Your task to perform on an android device: Clear the cart on ebay. Search for "acer predator" on ebay, select the first entry, and add it to the cart. Image 0: 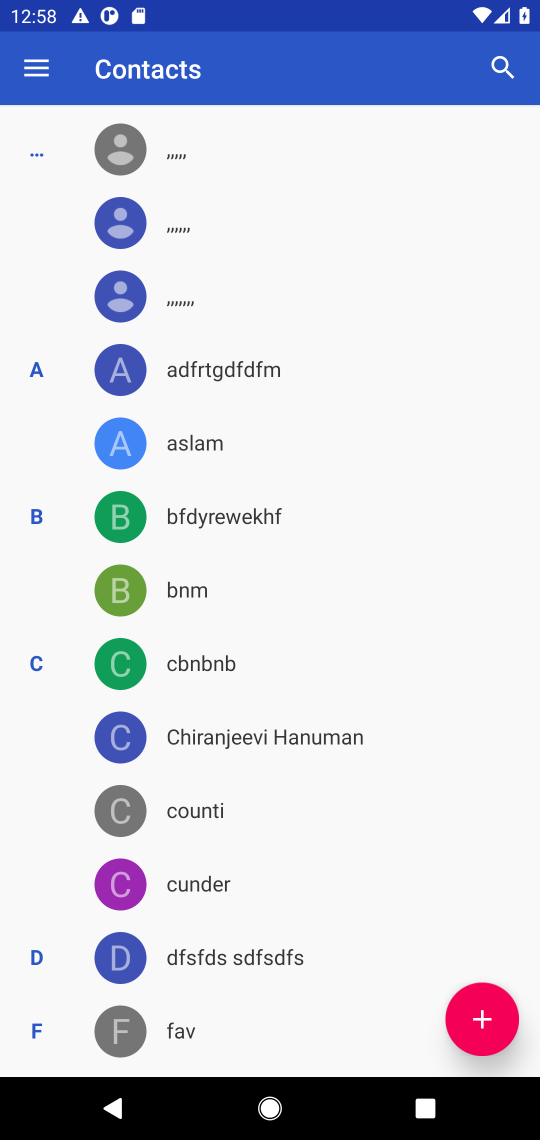
Step 0: press home button
Your task to perform on an android device: Clear the cart on ebay. Search for "acer predator" on ebay, select the first entry, and add it to the cart. Image 1: 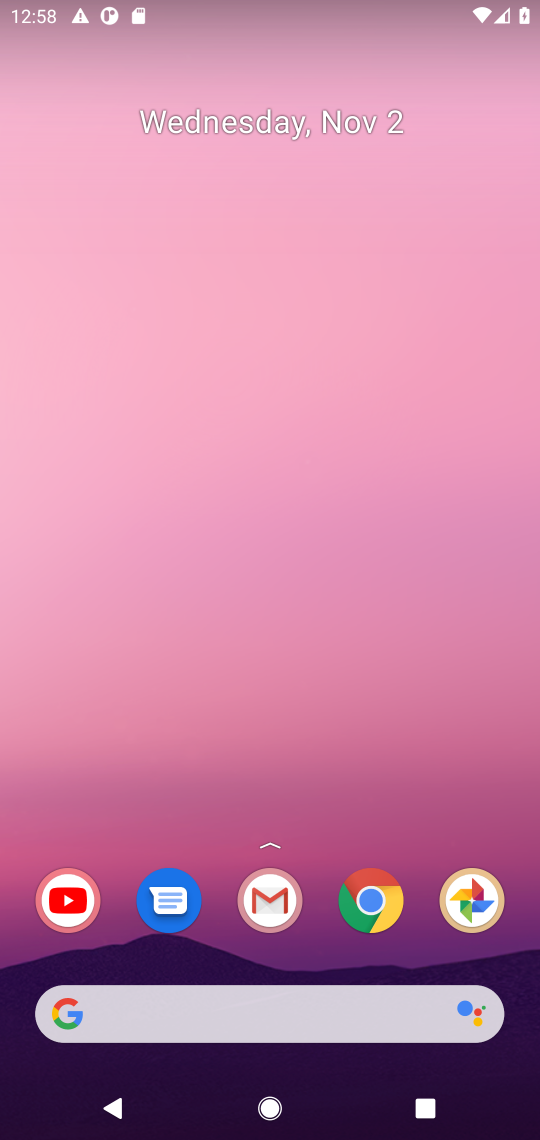
Step 1: click (379, 886)
Your task to perform on an android device: Clear the cart on ebay. Search for "acer predator" on ebay, select the first entry, and add it to the cart. Image 2: 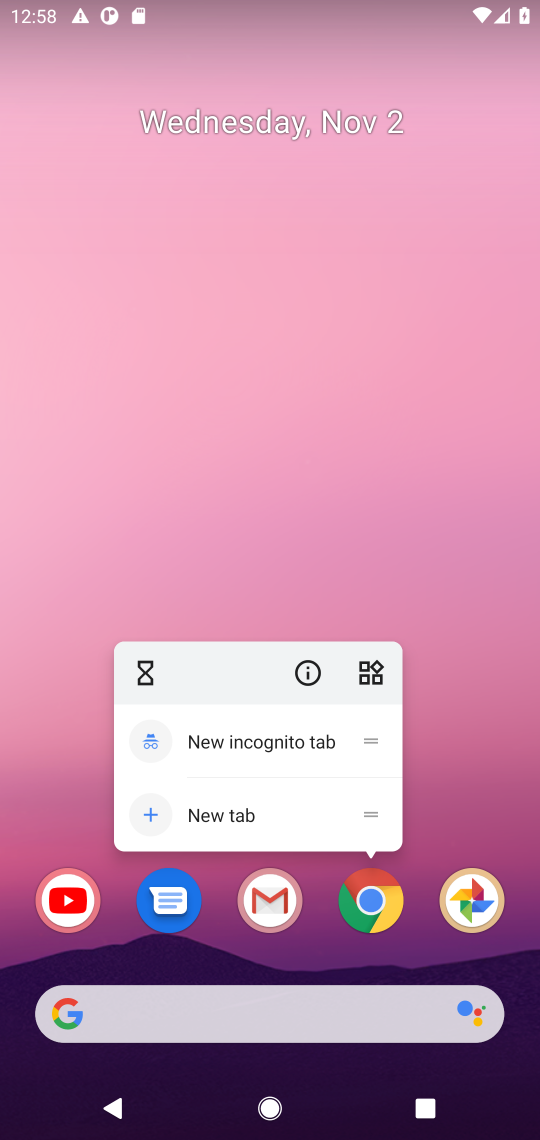
Step 2: click (377, 905)
Your task to perform on an android device: Clear the cart on ebay. Search for "acer predator" on ebay, select the first entry, and add it to the cart. Image 3: 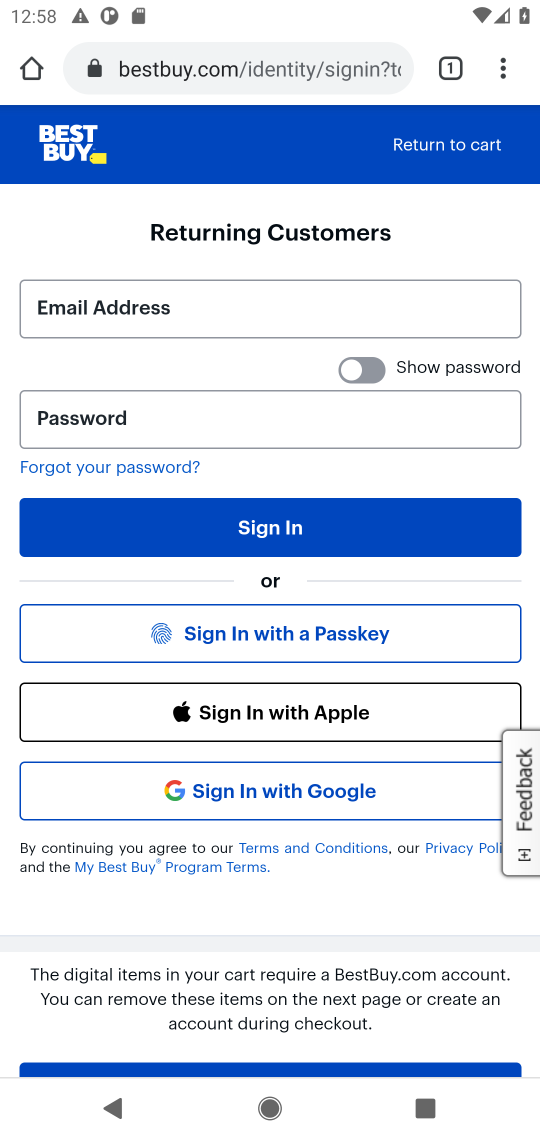
Step 3: click (241, 70)
Your task to perform on an android device: Clear the cart on ebay. Search for "acer predator" on ebay, select the first entry, and add it to the cart. Image 4: 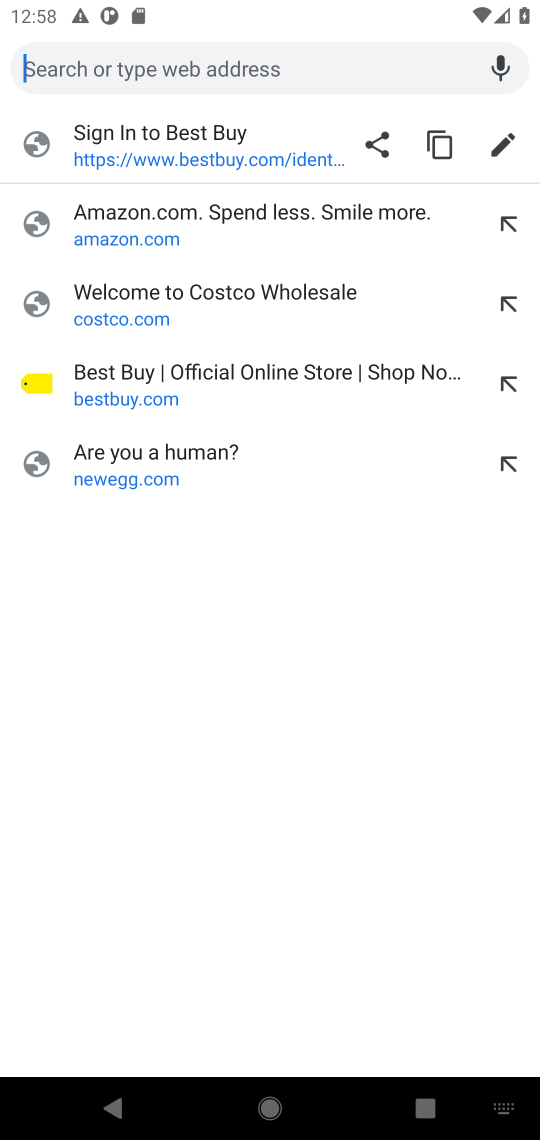
Step 4: type "ebay"
Your task to perform on an android device: Clear the cart on ebay. Search for "acer predator" on ebay, select the first entry, and add it to the cart. Image 5: 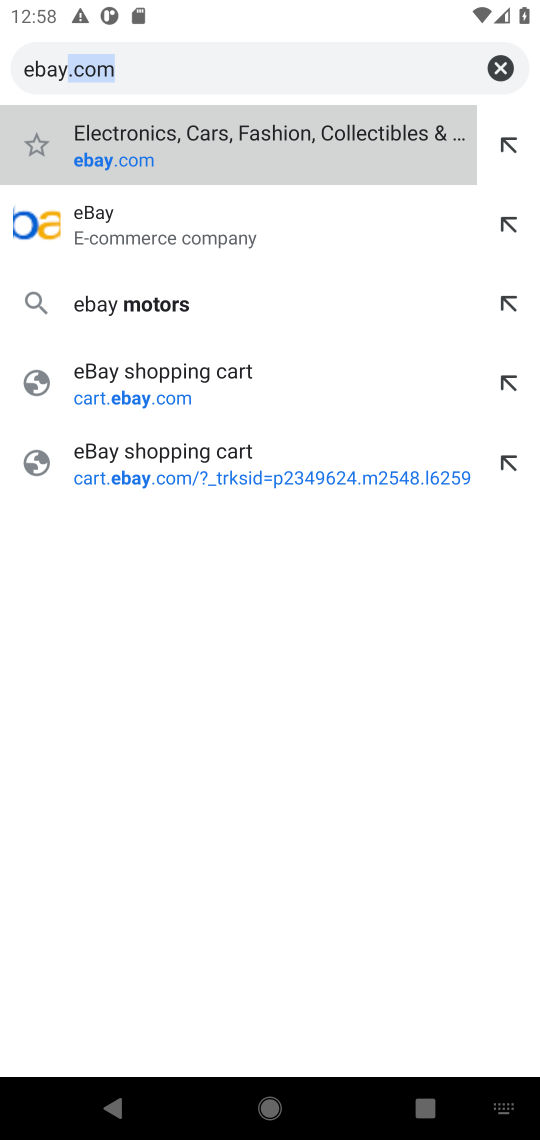
Step 5: type ""
Your task to perform on an android device: Clear the cart on ebay. Search for "acer predator" on ebay, select the first entry, and add it to the cart. Image 6: 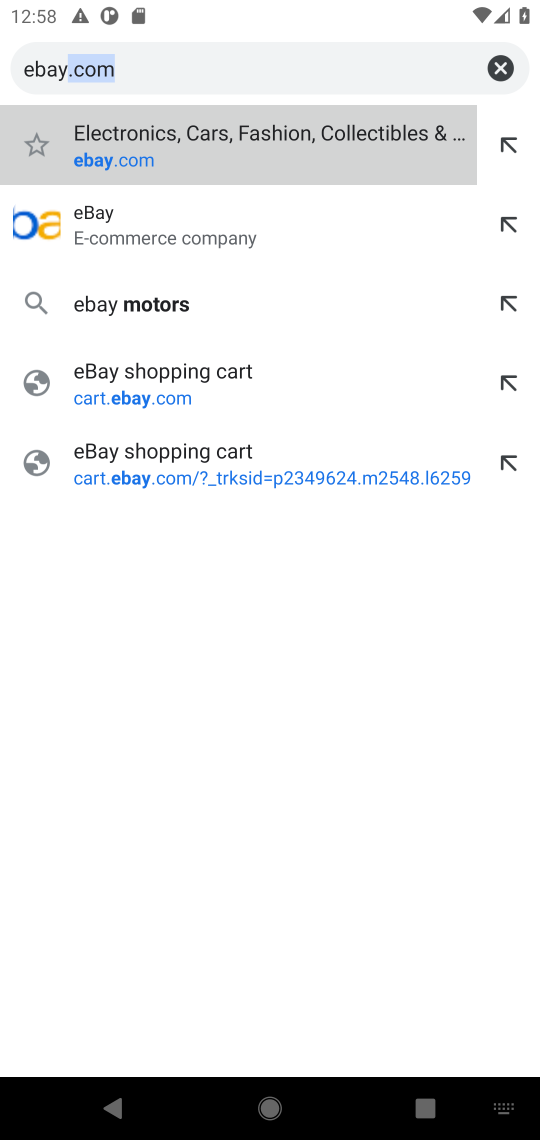
Step 6: click (132, 244)
Your task to perform on an android device: Clear the cart on ebay. Search for "acer predator" on ebay, select the first entry, and add it to the cart. Image 7: 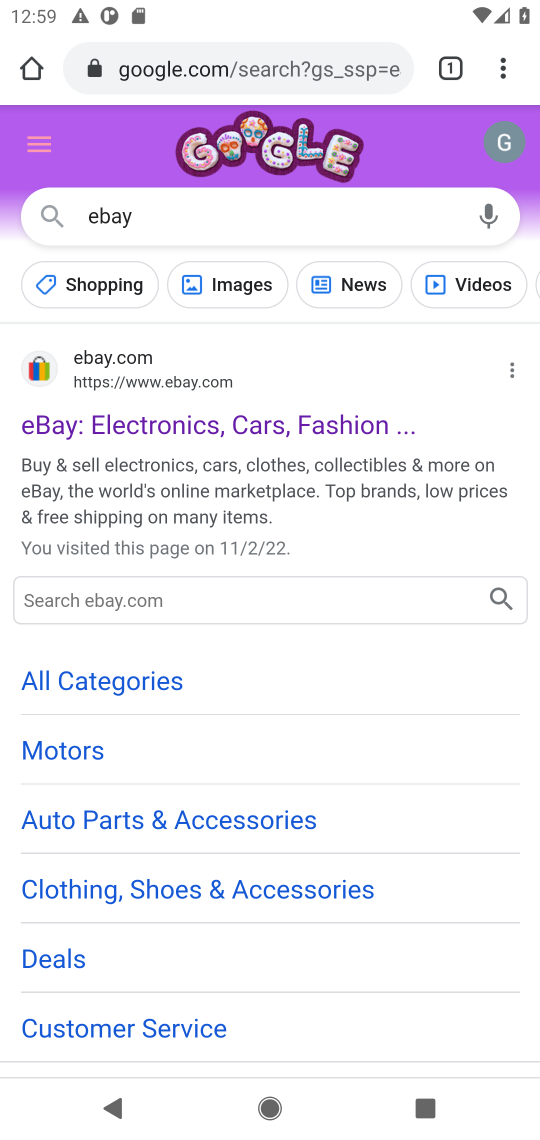
Step 7: click (145, 426)
Your task to perform on an android device: Clear the cart on ebay. Search for "acer predator" on ebay, select the first entry, and add it to the cart. Image 8: 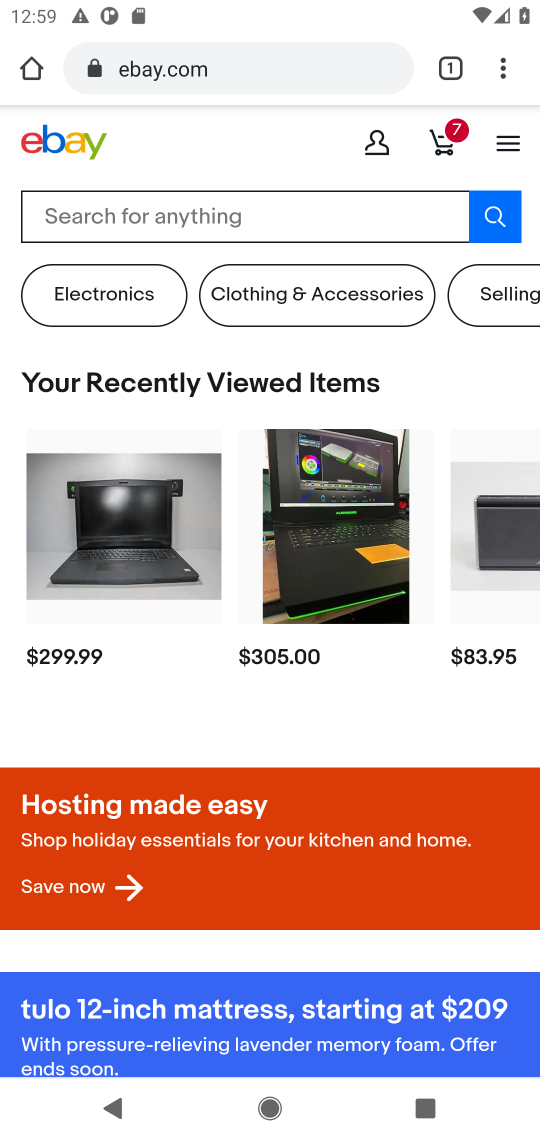
Step 8: click (187, 216)
Your task to perform on an android device: Clear the cart on ebay. Search for "acer predator" on ebay, select the first entry, and add it to the cart. Image 9: 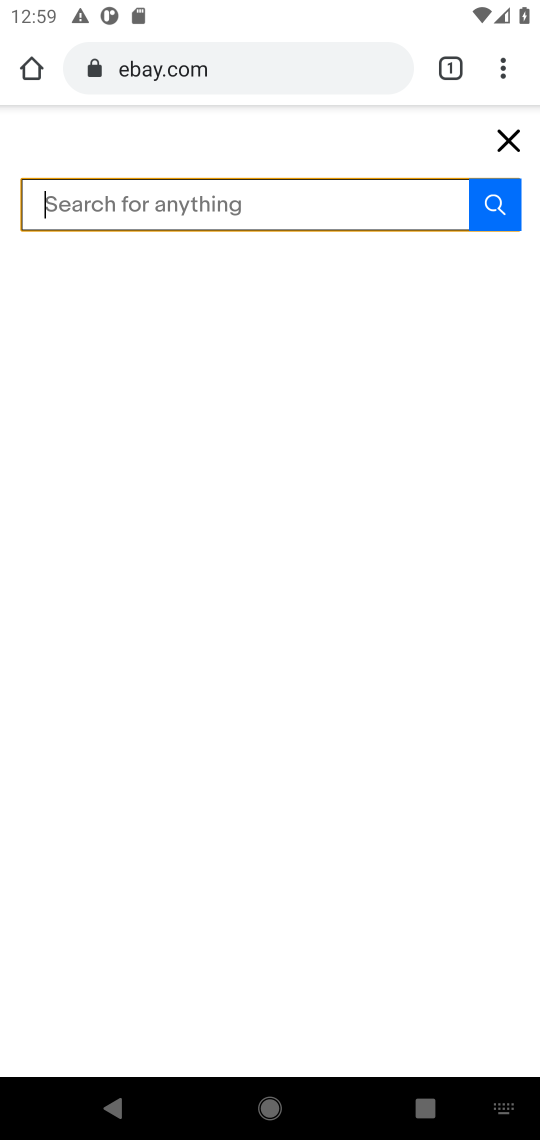
Step 9: type "acer predator"
Your task to perform on an android device: Clear the cart on ebay. Search for "acer predator" on ebay, select the first entry, and add it to the cart. Image 10: 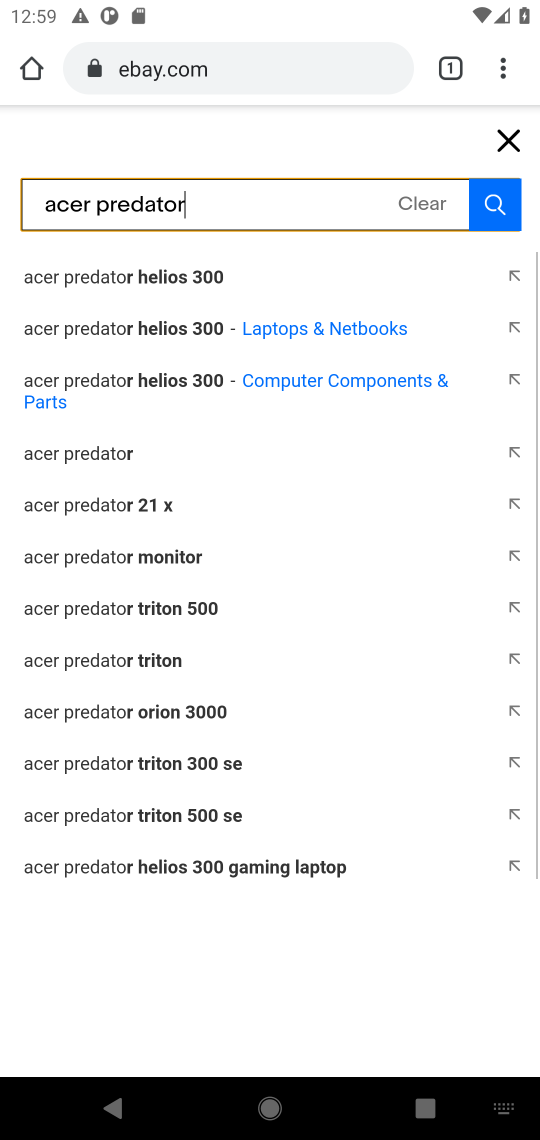
Step 10: type ""
Your task to perform on an android device: Clear the cart on ebay. Search for "acer predator" on ebay, select the first entry, and add it to the cart. Image 11: 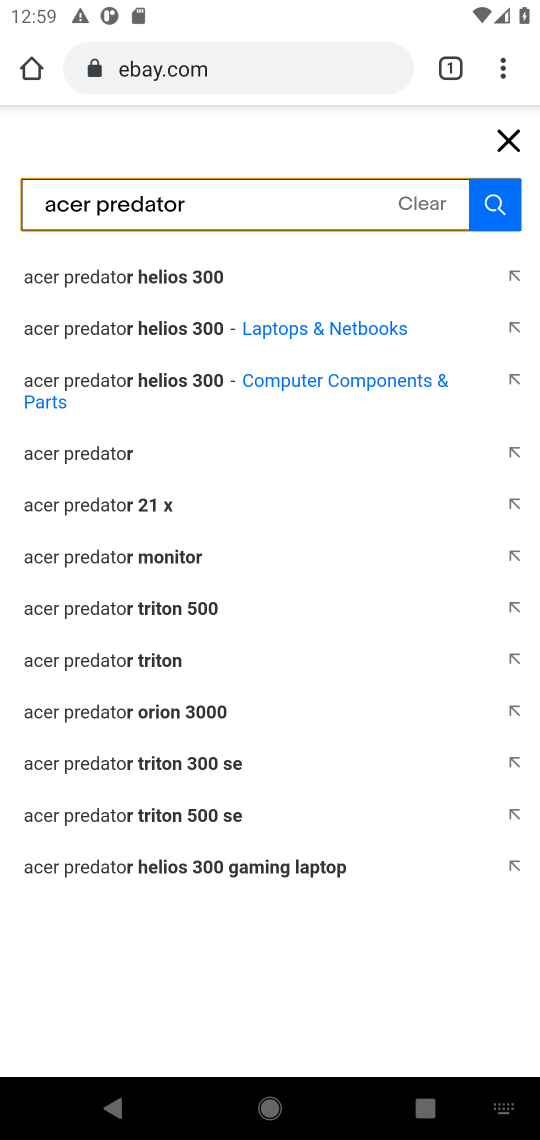
Step 11: click (500, 199)
Your task to perform on an android device: Clear the cart on ebay. Search for "acer predator" on ebay, select the first entry, and add it to the cart. Image 12: 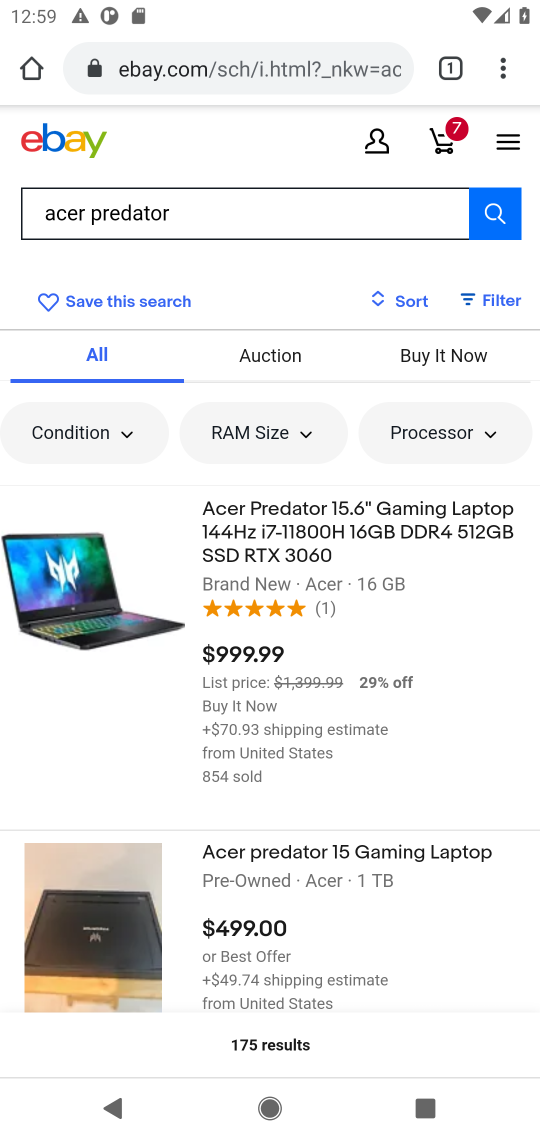
Step 12: click (446, 138)
Your task to perform on an android device: Clear the cart on ebay. Search for "acer predator" on ebay, select the first entry, and add it to the cart. Image 13: 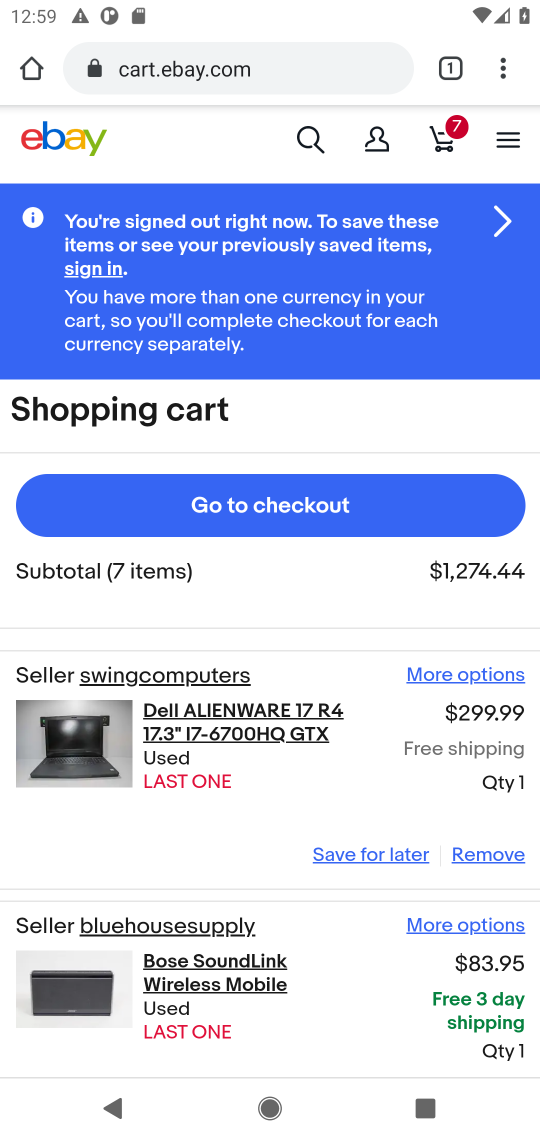
Step 13: click (462, 847)
Your task to perform on an android device: Clear the cart on ebay. Search for "acer predator" on ebay, select the first entry, and add it to the cart. Image 14: 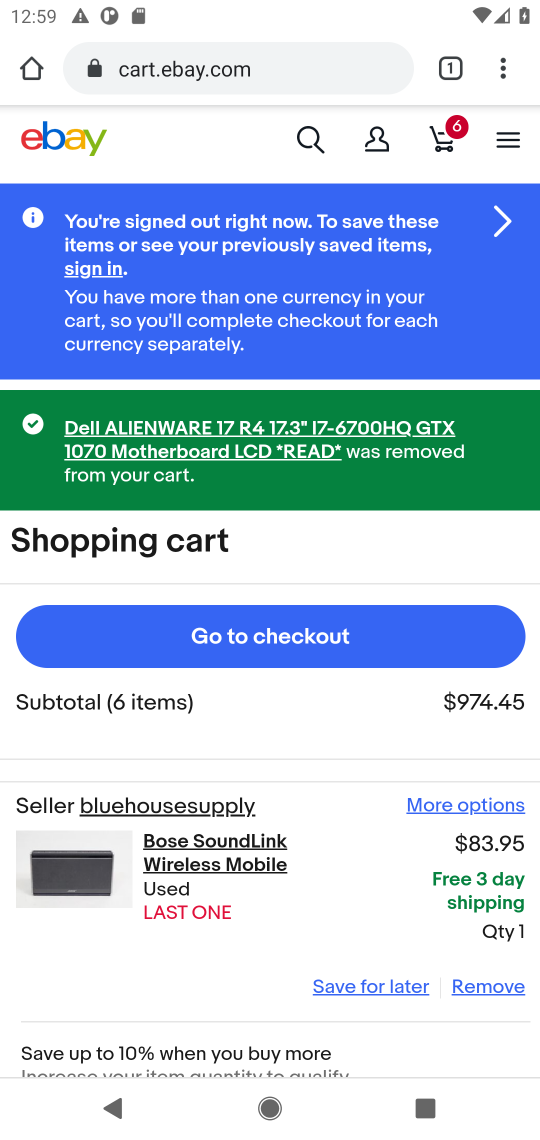
Step 14: click (476, 989)
Your task to perform on an android device: Clear the cart on ebay. Search for "acer predator" on ebay, select the first entry, and add it to the cart. Image 15: 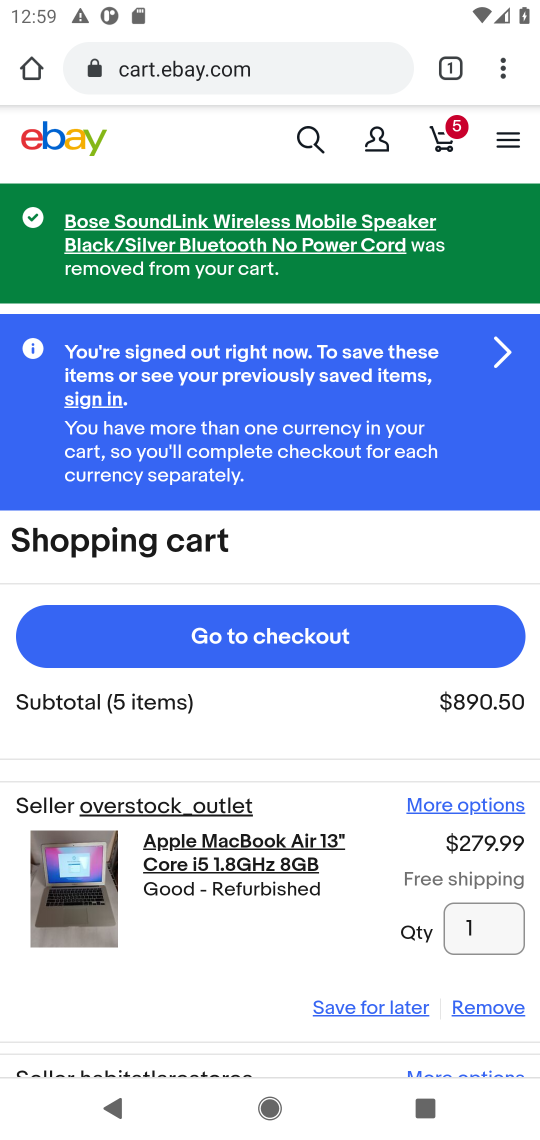
Step 15: click (481, 1002)
Your task to perform on an android device: Clear the cart on ebay. Search for "acer predator" on ebay, select the first entry, and add it to the cart. Image 16: 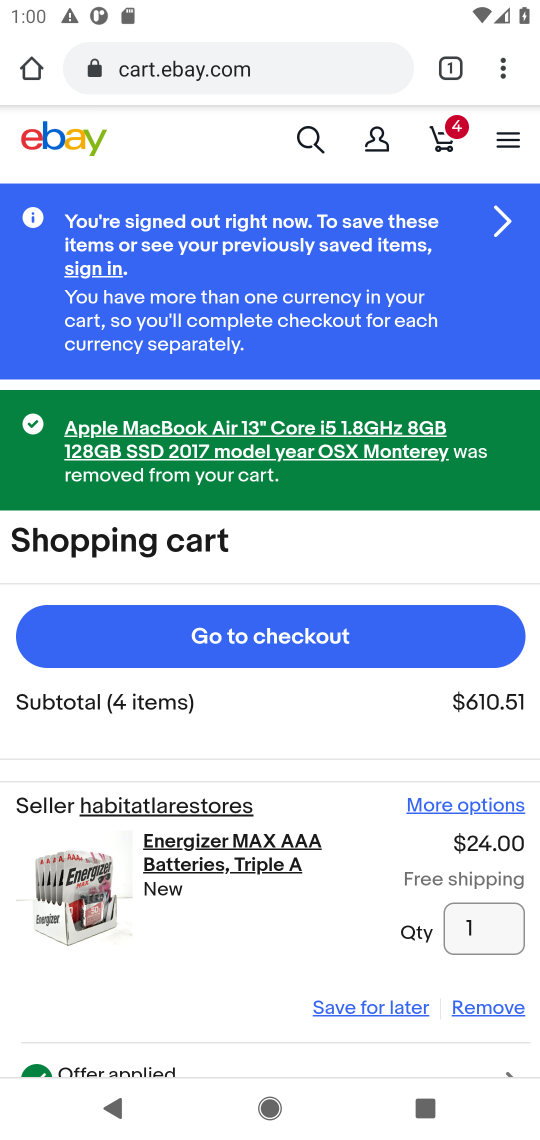
Step 16: click (481, 1002)
Your task to perform on an android device: Clear the cart on ebay. Search for "acer predator" on ebay, select the first entry, and add it to the cart. Image 17: 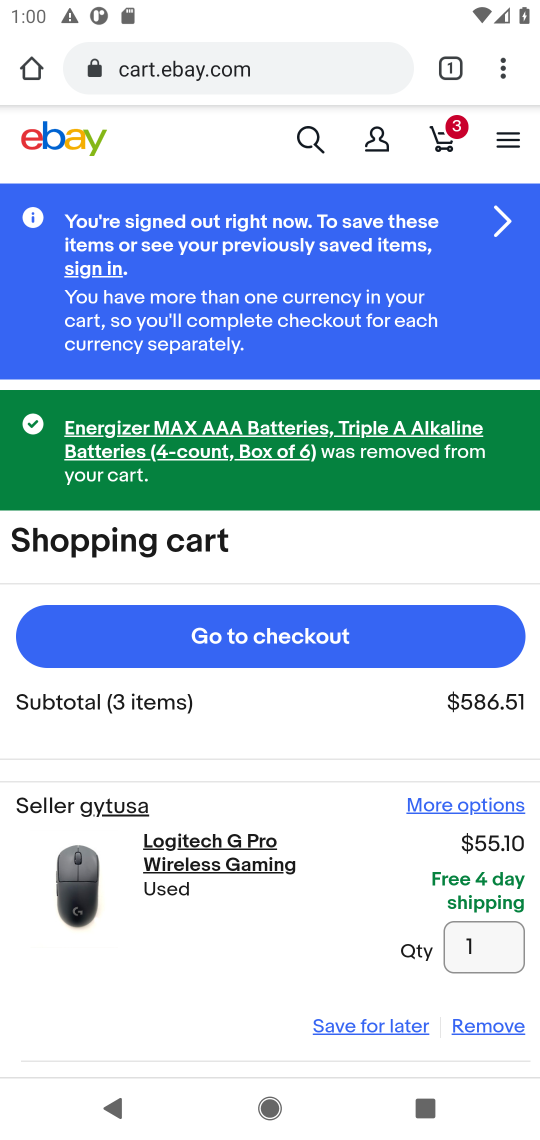
Step 17: click (476, 1027)
Your task to perform on an android device: Clear the cart on ebay. Search for "acer predator" on ebay, select the first entry, and add it to the cart. Image 18: 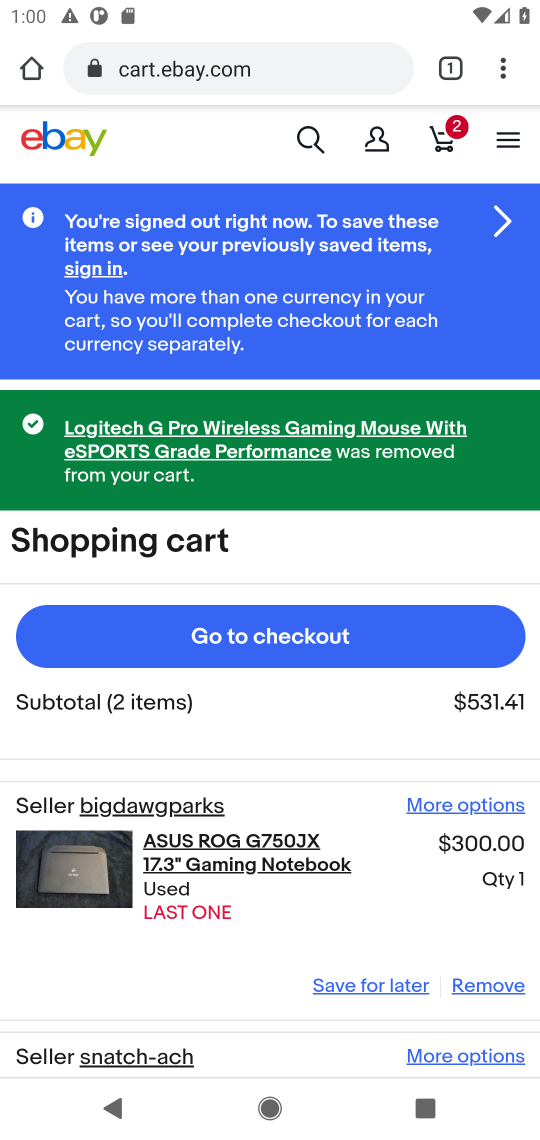
Step 18: click (471, 990)
Your task to perform on an android device: Clear the cart on ebay. Search for "acer predator" on ebay, select the first entry, and add it to the cart. Image 19: 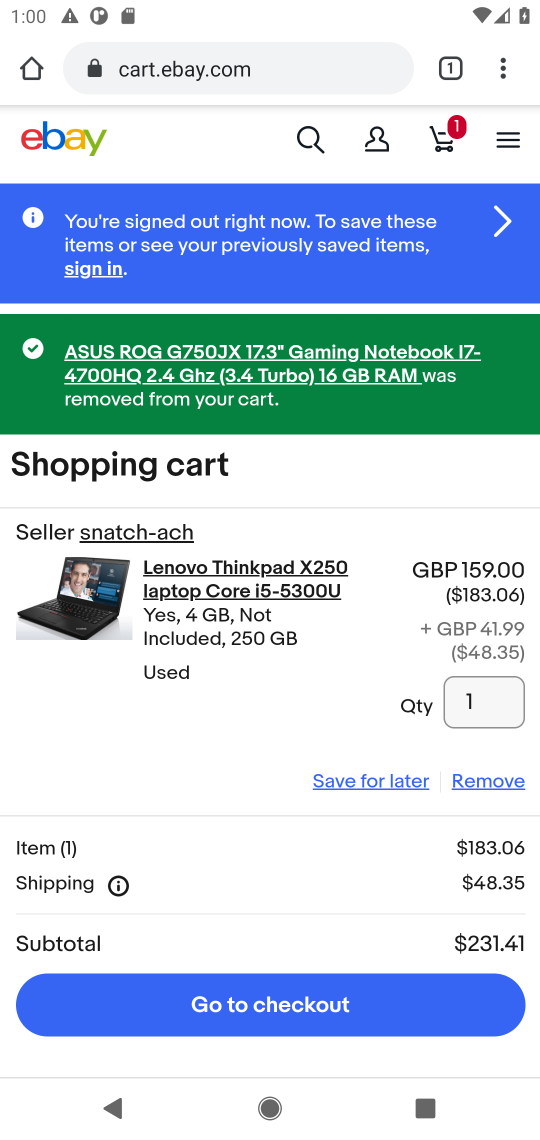
Step 19: click (492, 773)
Your task to perform on an android device: Clear the cart on ebay. Search for "acer predator" on ebay, select the first entry, and add it to the cart. Image 20: 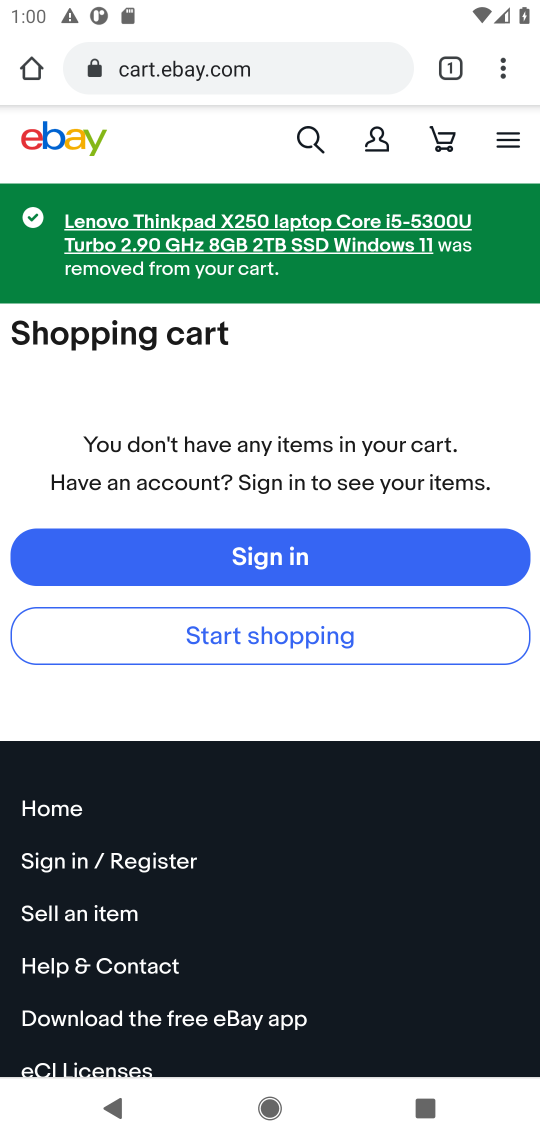
Step 20: click (309, 136)
Your task to perform on an android device: Clear the cart on ebay. Search for "acer predator" on ebay, select the first entry, and add it to the cart. Image 21: 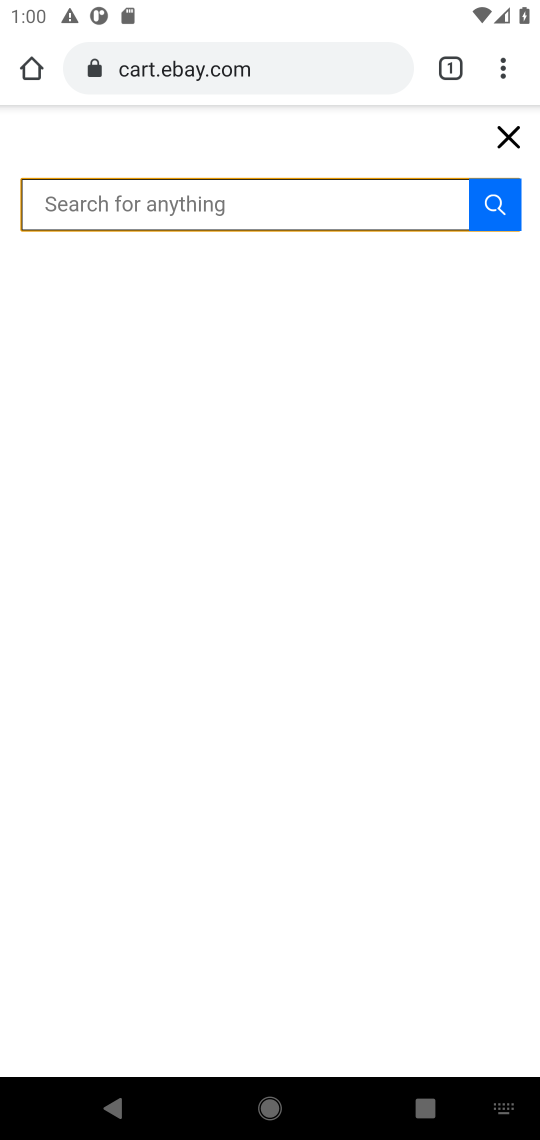
Step 21: type "acer predator"
Your task to perform on an android device: Clear the cart on ebay. Search for "acer predator" on ebay, select the first entry, and add it to the cart. Image 22: 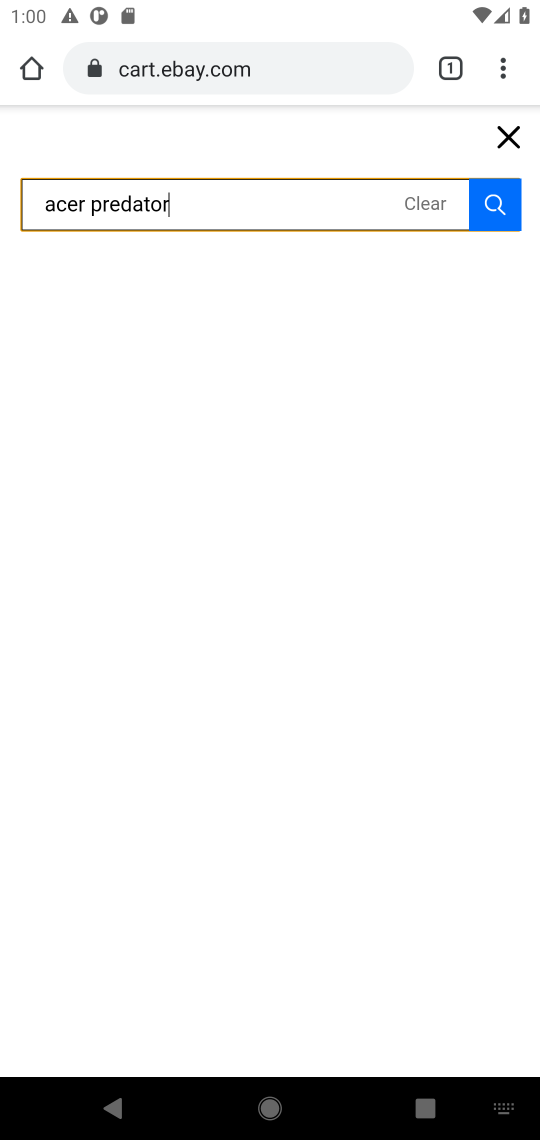
Step 22: type ""
Your task to perform on an android device: Clear the cart on ebay. Search for "acer predator" on ebay, select the first entry, and add it to the cart. Image 23: 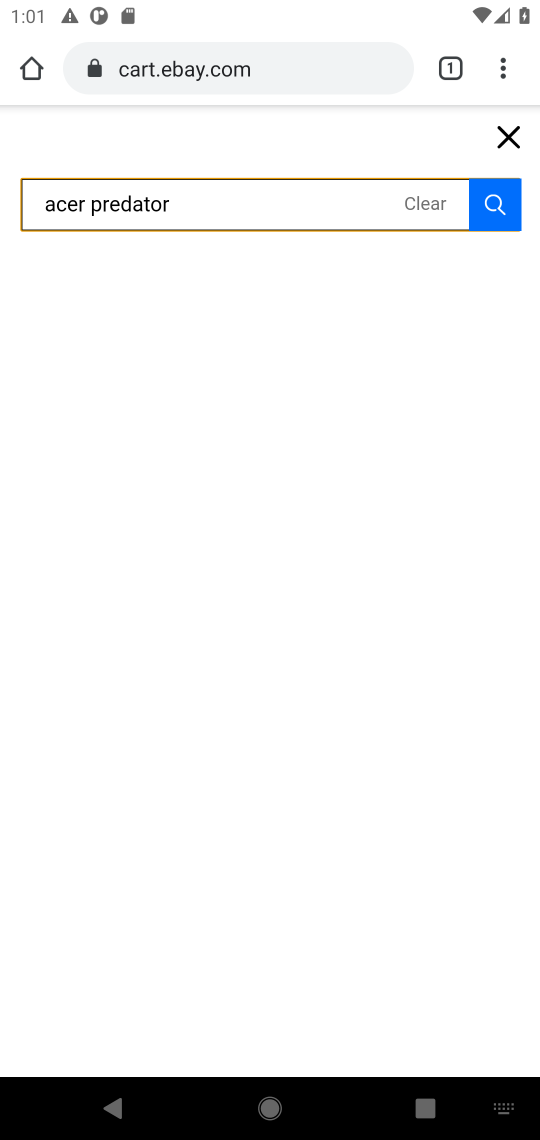
Step 23: click (481, 209)
Your task to perform on an android device: Clear the cart on ebay. Search for "acer predator" on ebay, select the first entry, and add it to the cart. Image 24: 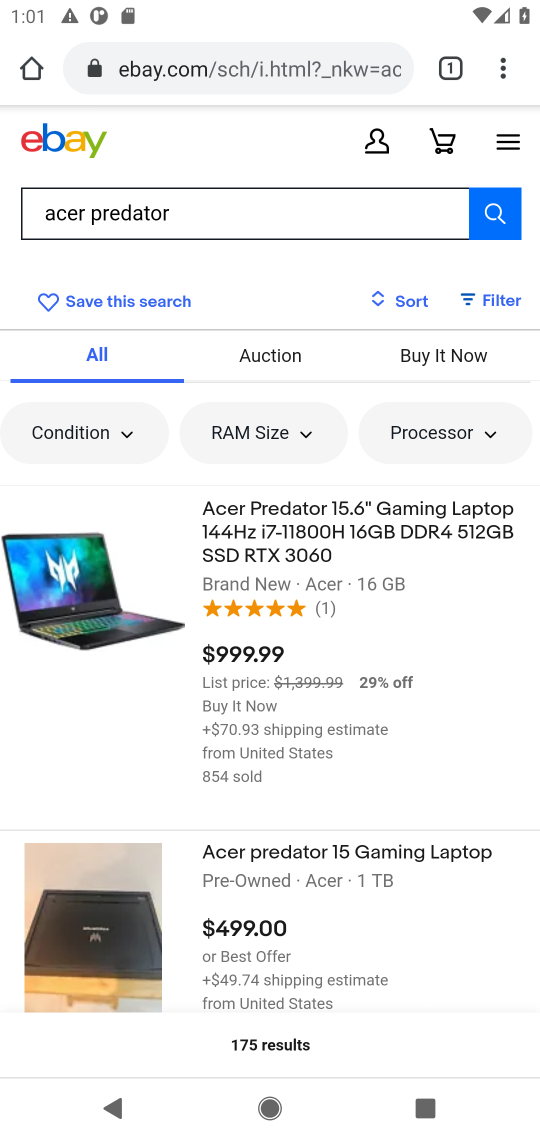
Step 24: click (351, 511)
Your task to perform on an android device: Clear the cart on ebay. Search for "acer predator" on ebay, select the first entry, and add it to the cart. Image 25: 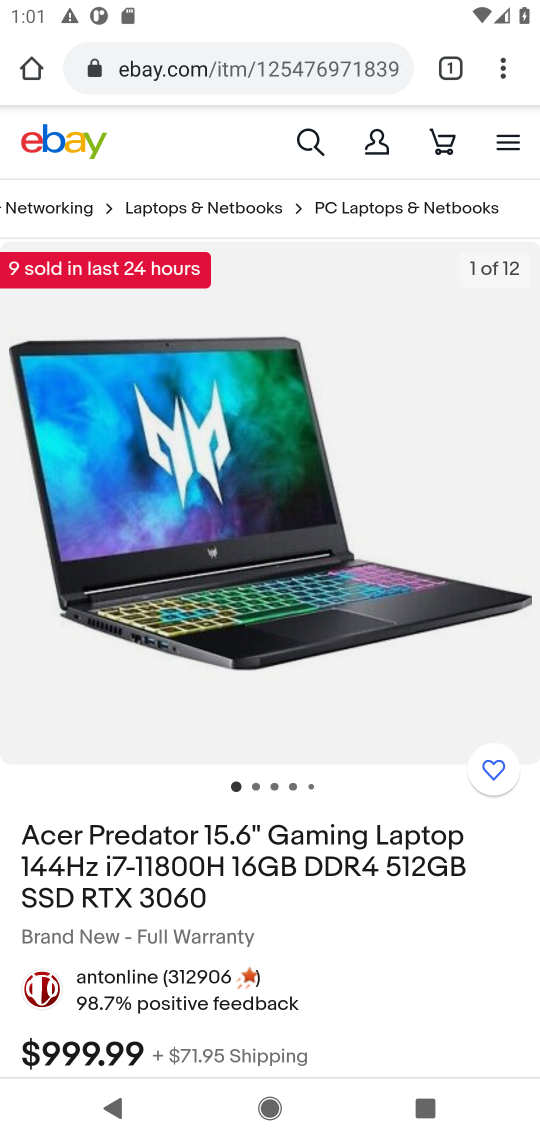
Step 25: drag from (329, 1022) to (437, 335)
Your task to perform on an android device: Clear the cart on ebay. Search for "acer predator" on ebay, select the first entry, and add it to the cart. Image 26: 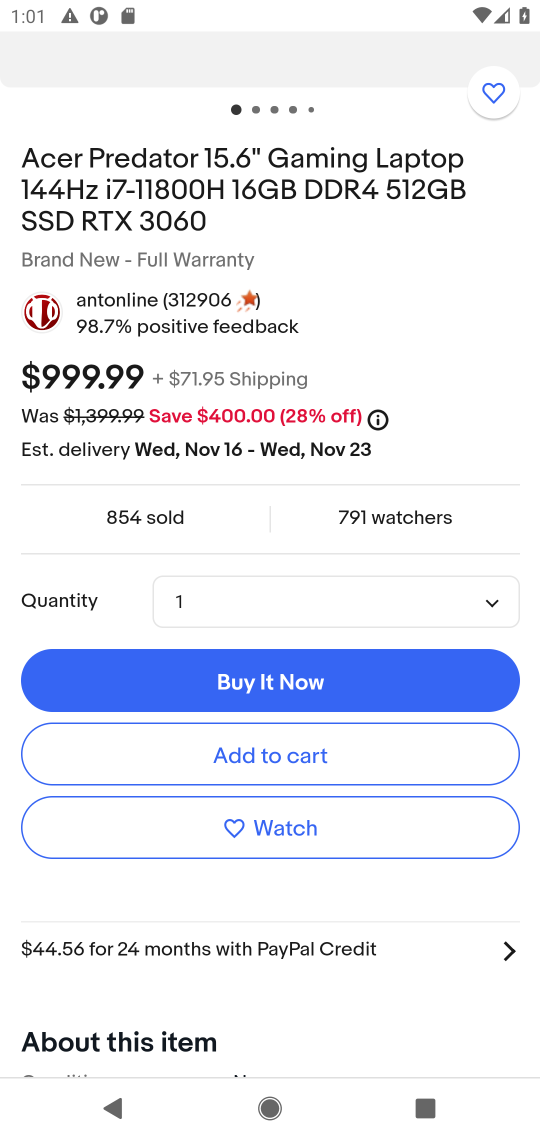
Step 26: click (318, 748)
Your task to perform on an android device: Clear the cart on ebay. Search for "acer predator" on ebay, select the first entry, and add it to the cart. Image 27: 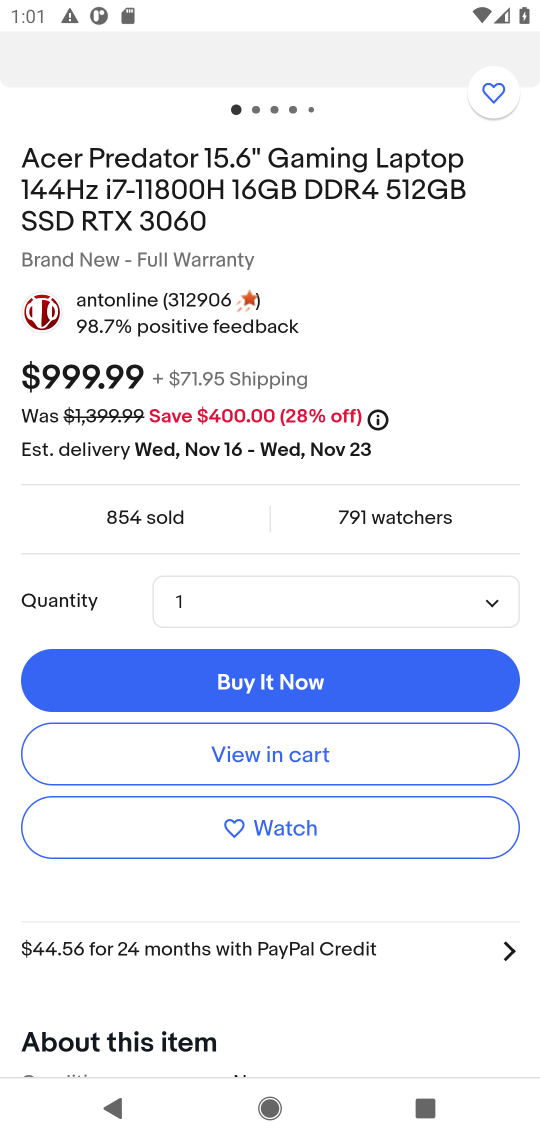
Step 27: task complete